Your task to perform on an android device: change notifications settings Image 0: 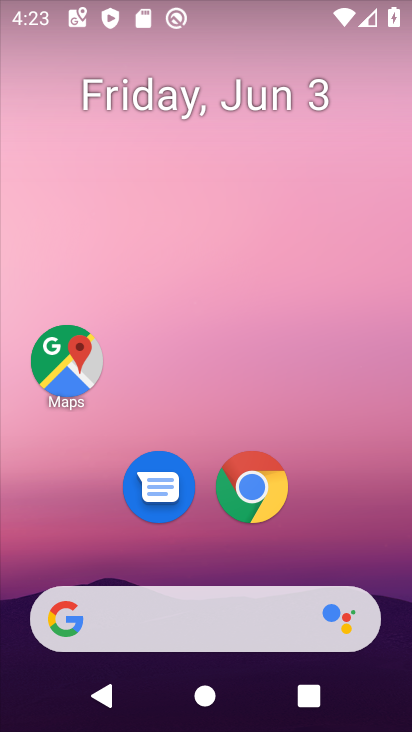
Step 0: drag from (176, 530) to (220, 25)
Your task to perform on an android device: change notifications settings Image 1: 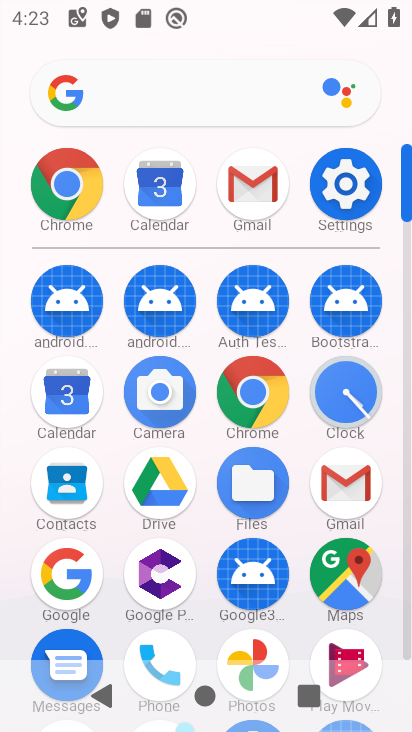
Step 1: click (353, 182)
Your task to perform on an android device: change notifications settings Image 2: 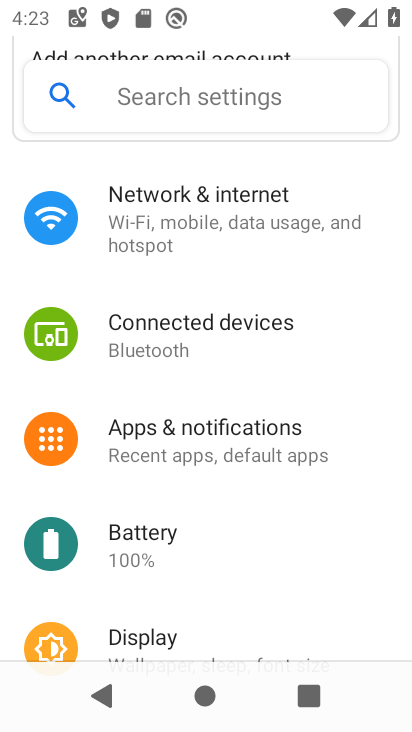
Step 2: click (232, 448)
Your task to perform on an android device: change notifications settings Image 3: 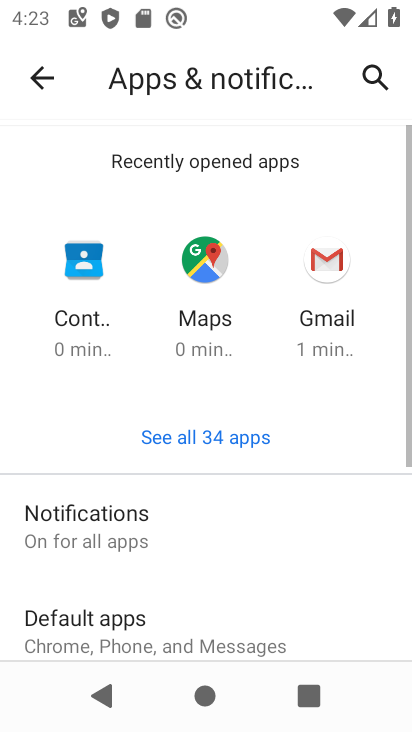
Step 3: drag from (246, 567) to (288, 146)
Your task to perform on an android device: change notifications settings Image 4: 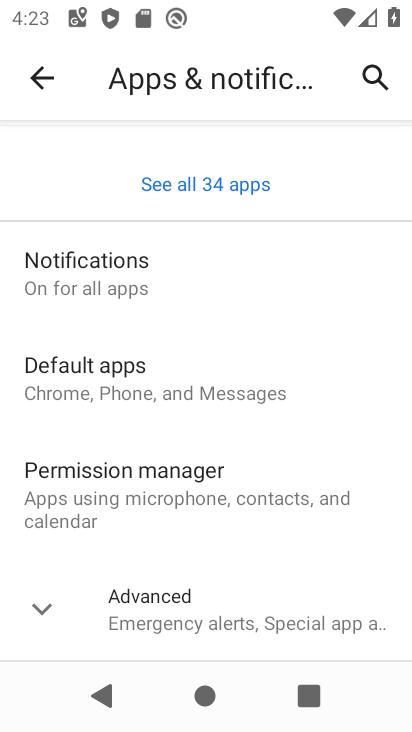
Step 4: click (143, 262)
Your task to perform on an android device: change notifications settings Image 5: 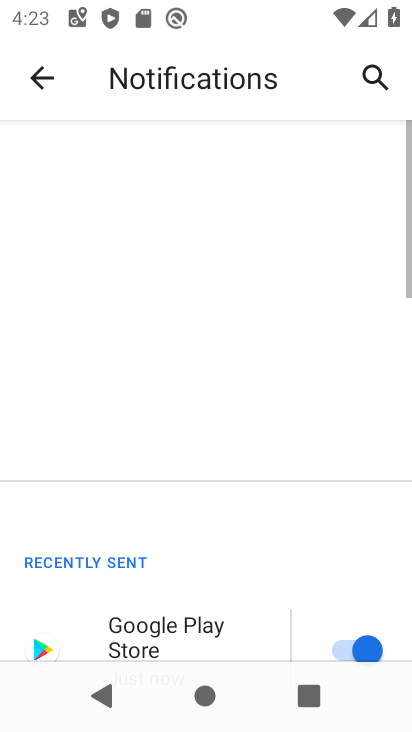
Step 5: drag from (279, 473) to (310, 130)
Your task to perform on an android device: change notifications settings Image 6: 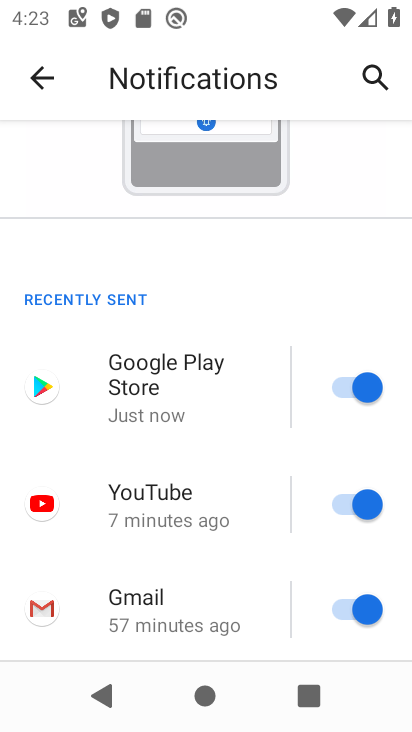
Step 6: drag from (206, 536) to (225, 203)
Your task to perform on an android device: change notifications settings Image 7: 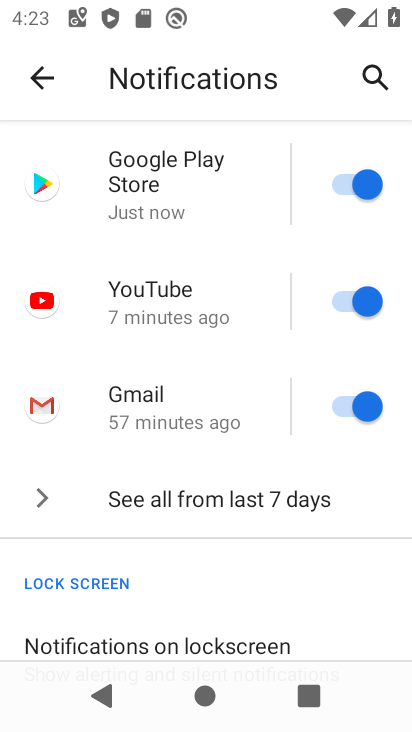
Step 7: click (350, 392)
Your task to perform on an android device: change notifications settings Image 8: 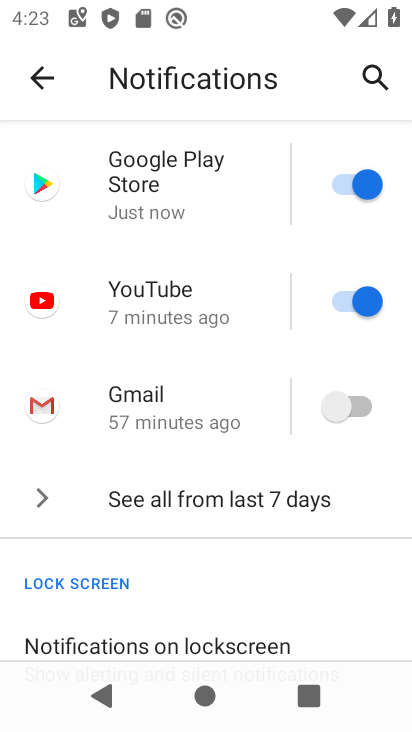
Step 8: task complete